Your task to perform on an android device: Show the shopping cart on target. Add "bose soundlink mini" to the cart on target Image 0: 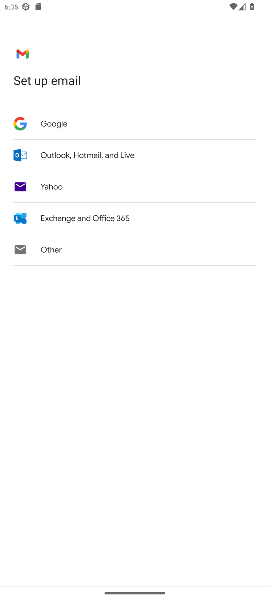
Step 0: press home button
Your task to perform on an android device: Show the shopping cart on target. Add "bose soundlink mini" to the cart on target Image 1: 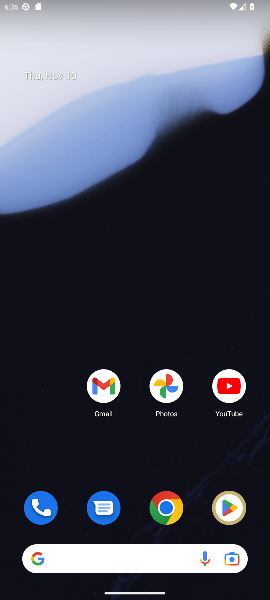
Step 1: click (166, 514)
Your task to perform on an android device: Show the shopping cart on target. Add "bose soundlink mini" to the cart on target Image 2: 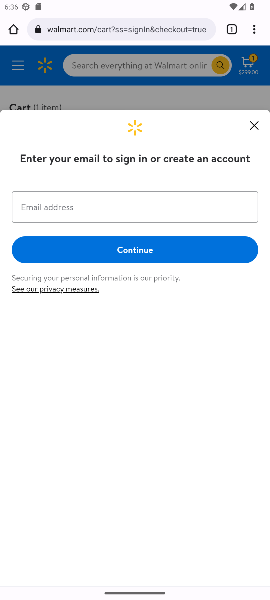
Step 2: click (184, 29)
Your task to perform on an android device: Show the shopping cart on target. Add "bose soundlink mini" to the cart on target Image 3: 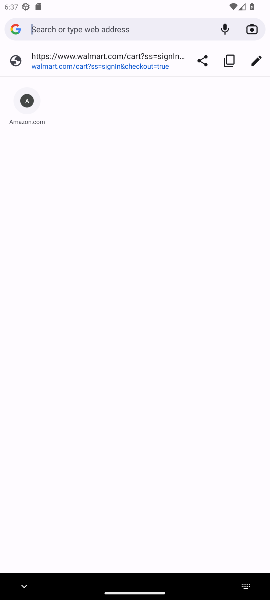
Step 3: type " target"
Your task to perform on an android device: Show the shopping cart on target. Add "bose soundlink mini" to the cart on target Image 4: 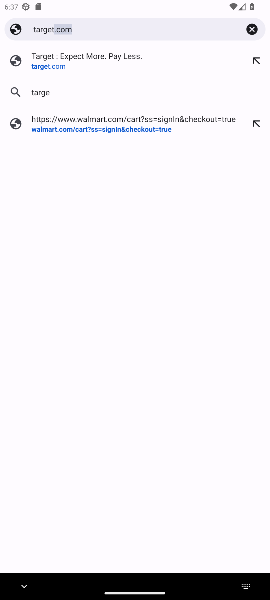
Step 4: press enter
Your task to perform on an android device: Show the shopping cart on target. Add "bose soundlink mini" to the cart on target Image 5: 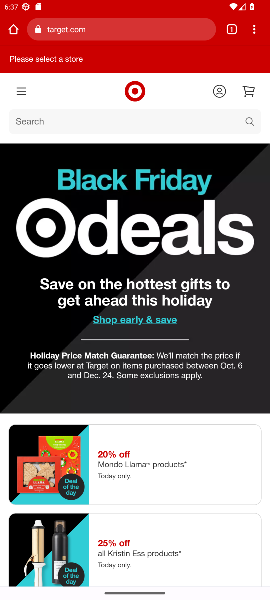
Step 5: click (39, 122)
Your task to perform on an android device: Show the shopping cart on target. Add "bose soundlink mini" to the cart on target Image 6: 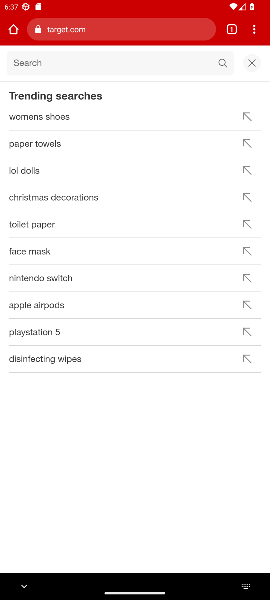
Step 6: click (62, 65)
Your task to perform on an android device: Show the shopping cart on target. Add "bose soundlink mini" to the cart on target Image 7: 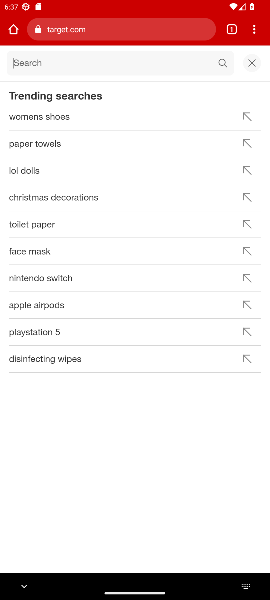
Step 7: type "bose soundlink mini"
Your task to perform on an android device: Show the shopping cart on target. Add "bose soundlink mini" to the cart on target Image 8: 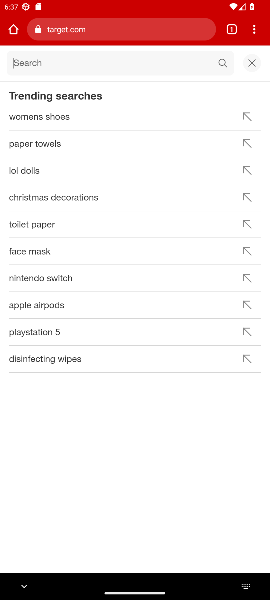
Step 8: press enter
Your task to perform on an android device: Show the shopping cart on target. Add "bose soundlink mini" to the cart on target Image 9: 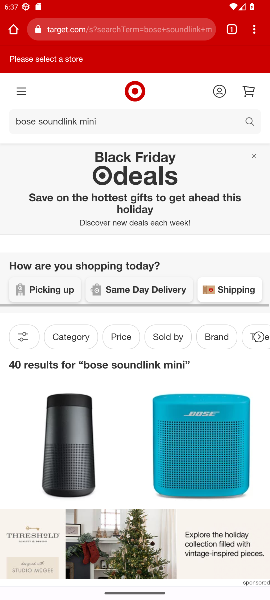
Step 9: drag from (107, 452) to (153, 166)
Your task to perform on an android device: Show the shopping cart on target. Add "bose soundlink mini" to the cart on target Image 10: 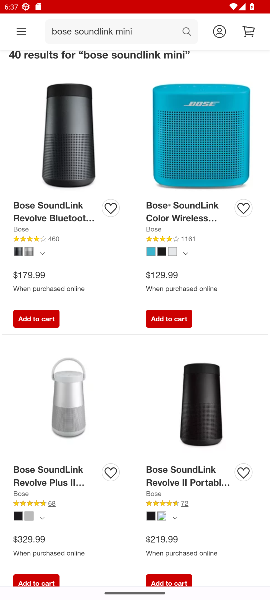
Step 10: click (43, 215)
Your task to perform on an android device: Show the shopping cart on target. Add "bose soundlink mini" to the cart on target Image 11: 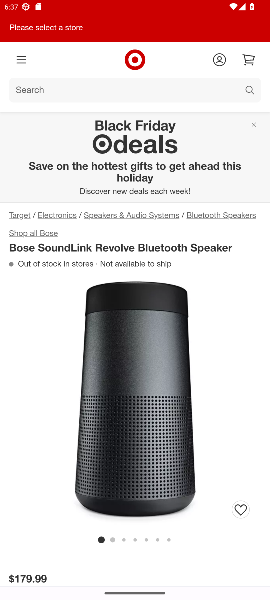
Step 11: drag from (26, 472) to (191, 182)
Your task to perform on an android device: Show the shopping cart on target. Add "bose soundlink mini" to the cart on target Image 12: 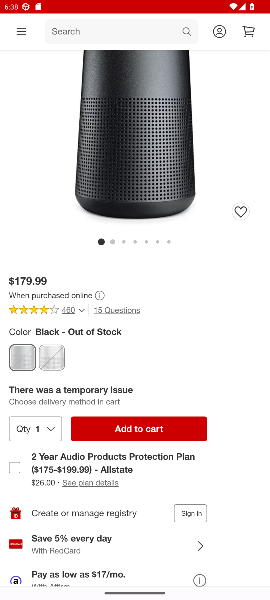
Step 12: click (137, 428)
Your task to perform on an android device: Show the shopping cart on target. Add "bose soundlink mini" to the cart on target Image 13: 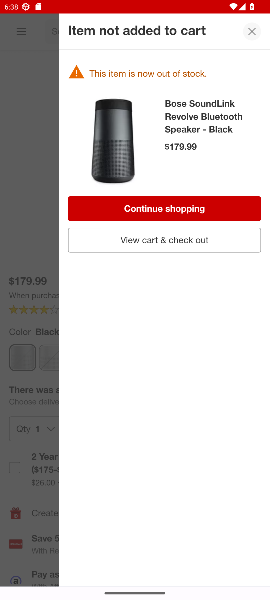
Step 13: click (173, 236)
Your task to perform on an android device: Show the shopping cart on target. Add "bose soundlink mini" to the cart on target Image 14: 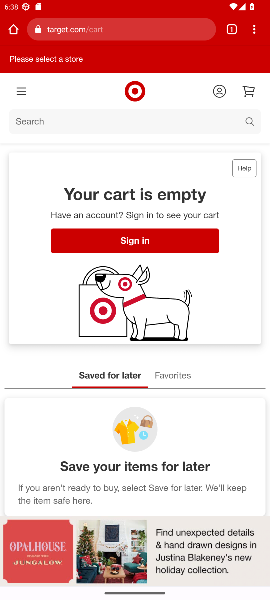
Step 14: task complete